Your task to perform on an android device: Go to Reddit.com Image 0: 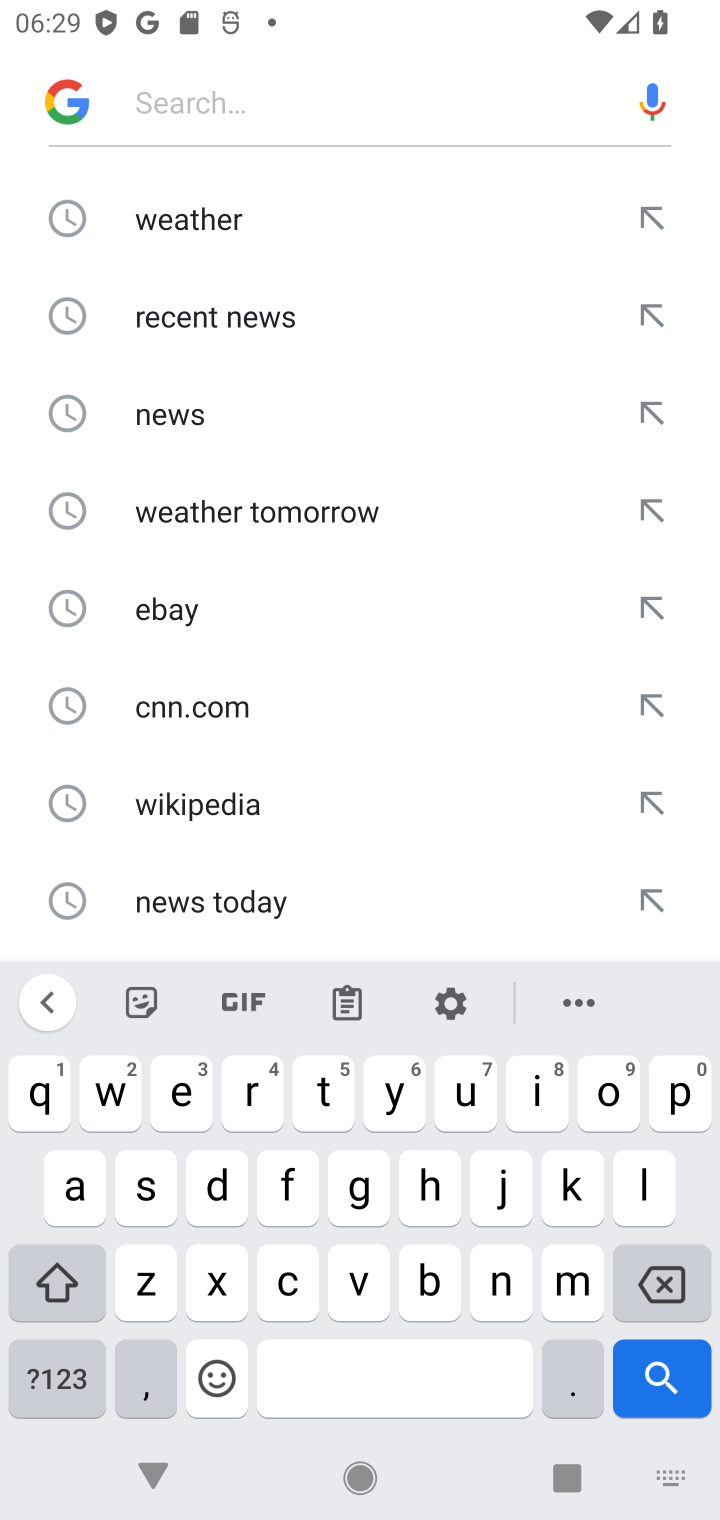
Step 0: press home button
Your task to perform on an android device: Go to Reddit.com Image 1: 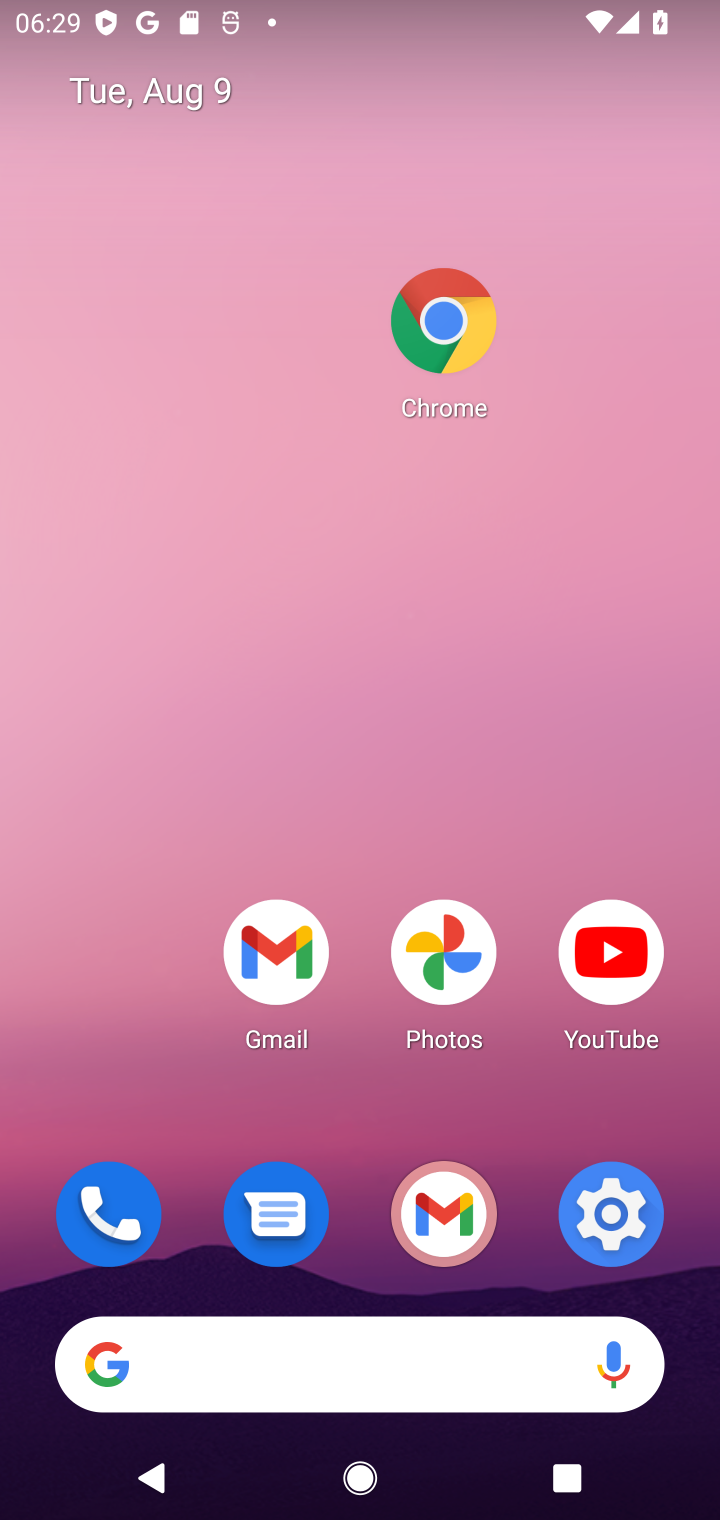
Step 1: click (443, 306)
Your task to perform on an android device: Go to Reddit.com Image 2: 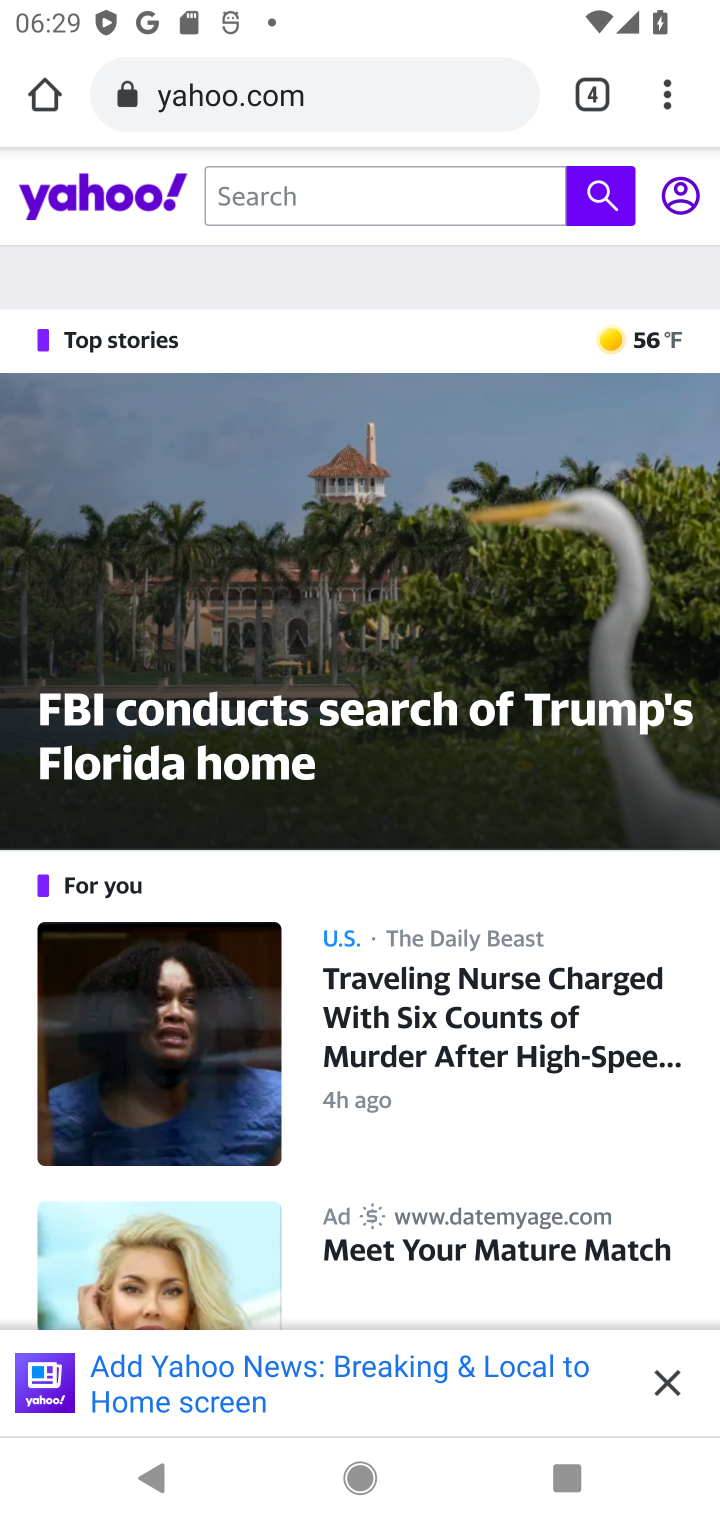
Step 2: click (336, 74)
Your task to perform on an android device: Go to Reddit.com Image 3: 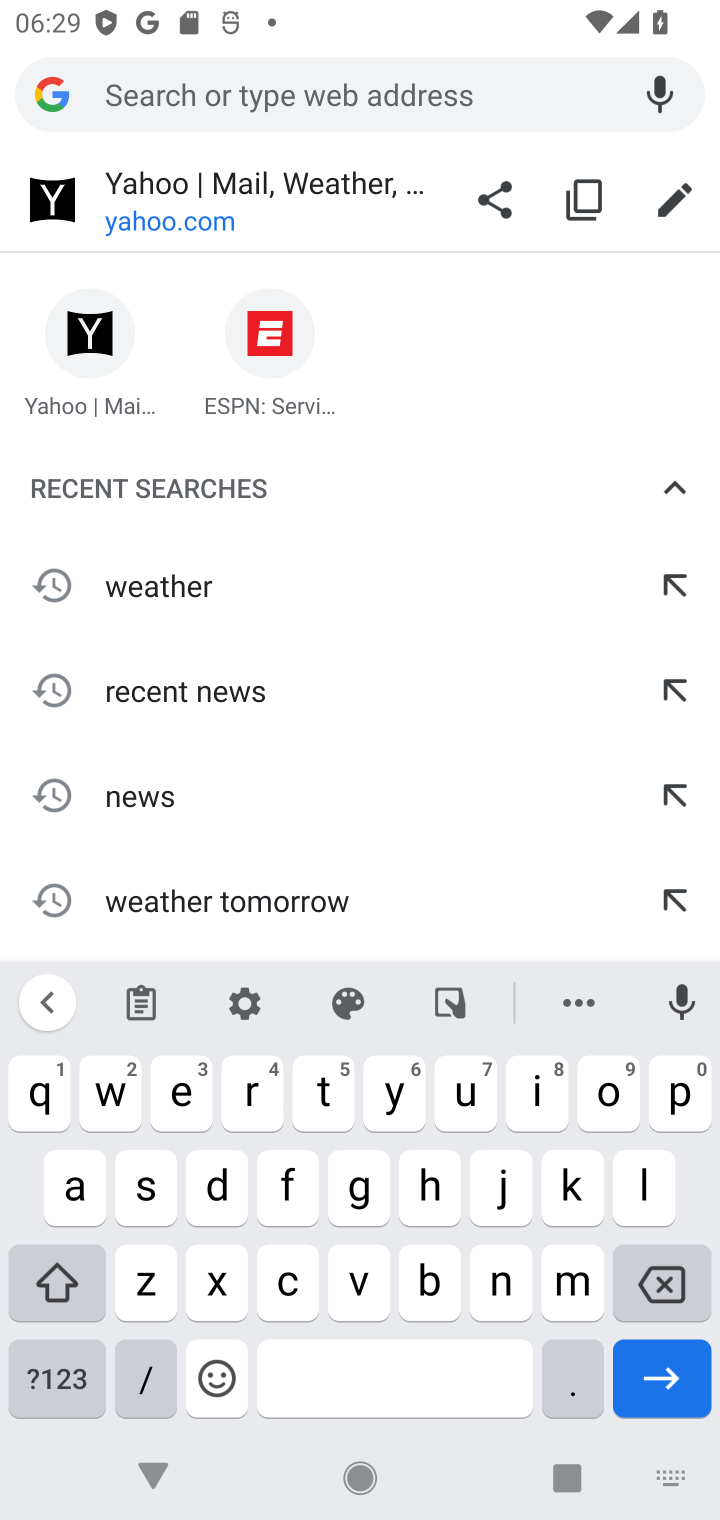
Step 3: click (231, 1094)
Your task to perform on an android device: Go to Reddit.com Image 4: 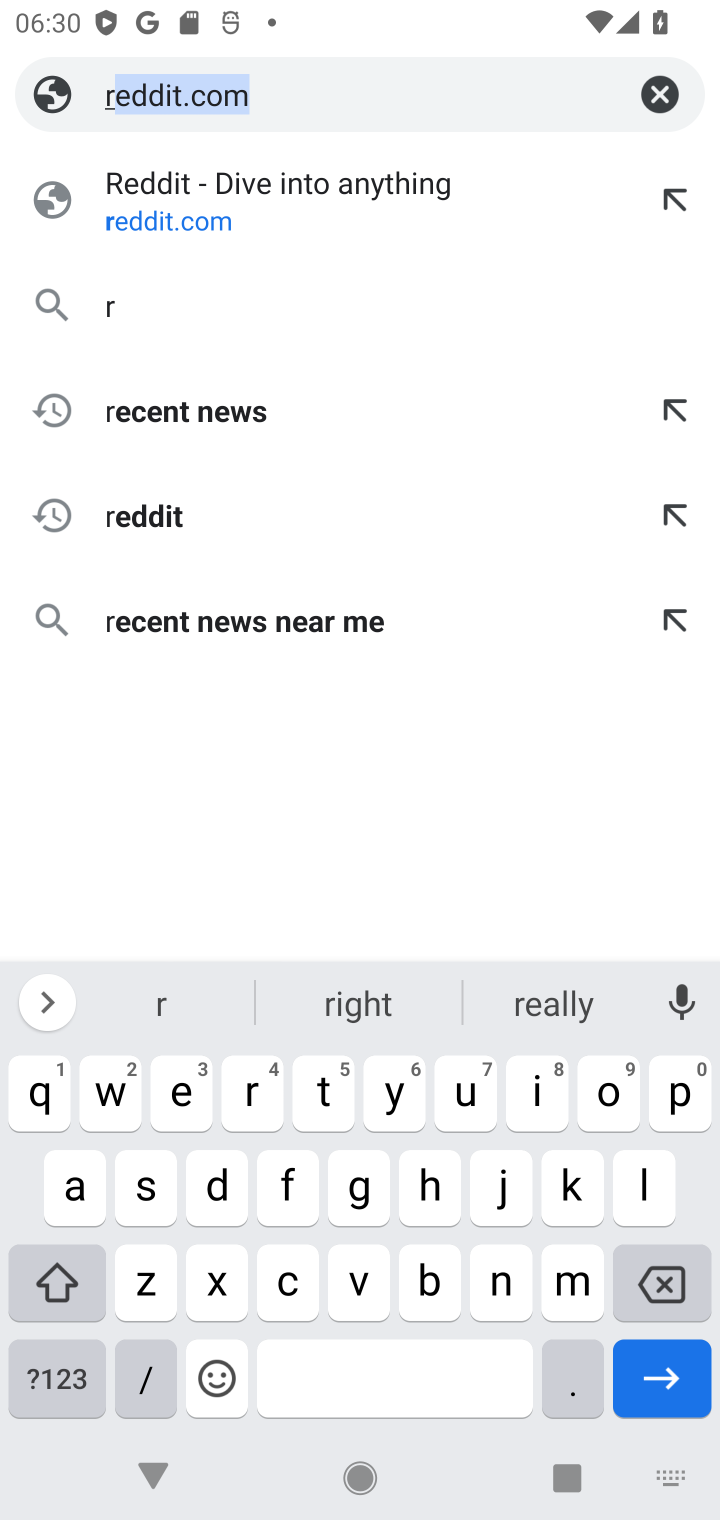
Step 4: click (328, 100)
Your task to perform on an android device: Go to Reddit.com Image 5: 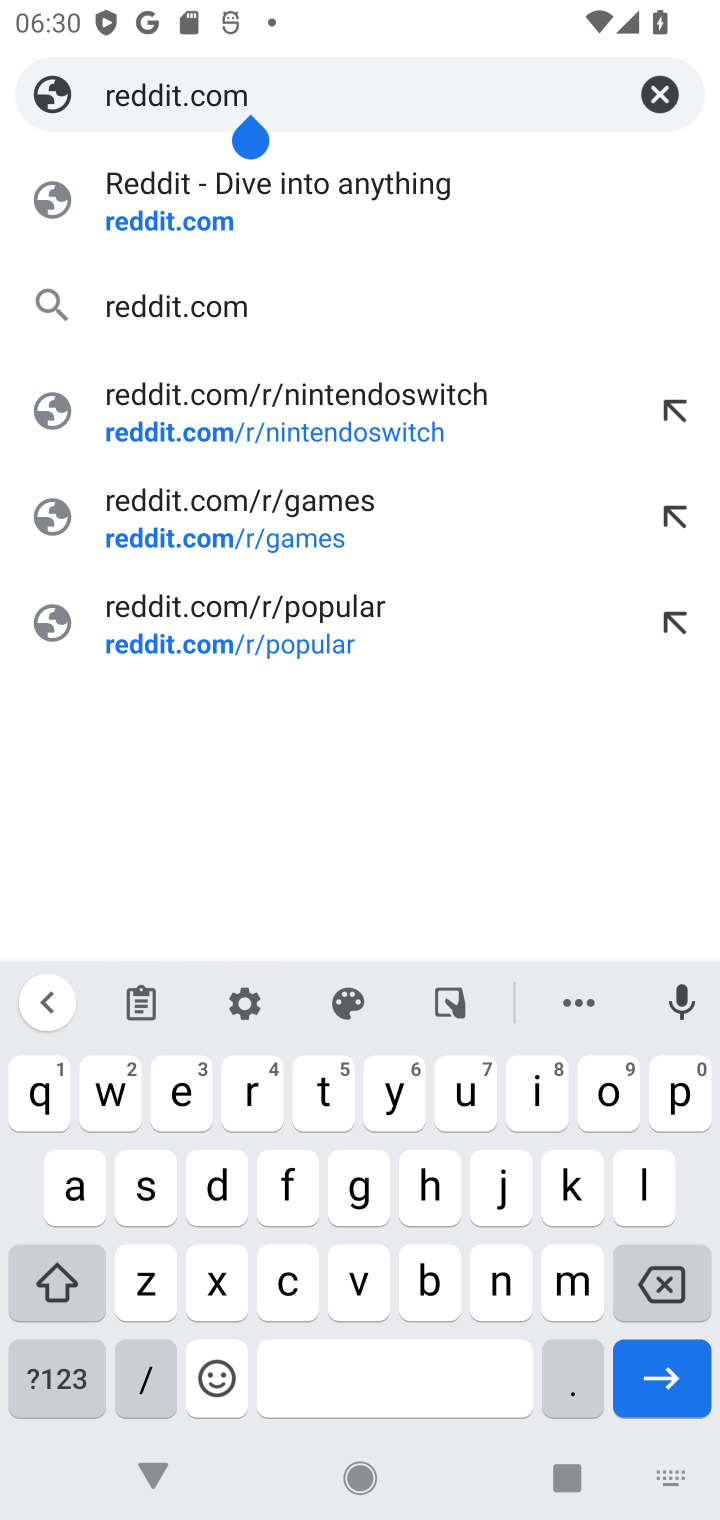
Step 5: click (652, 1371)
Your task to perform on an android device: Go to Reddit.com Image 6: 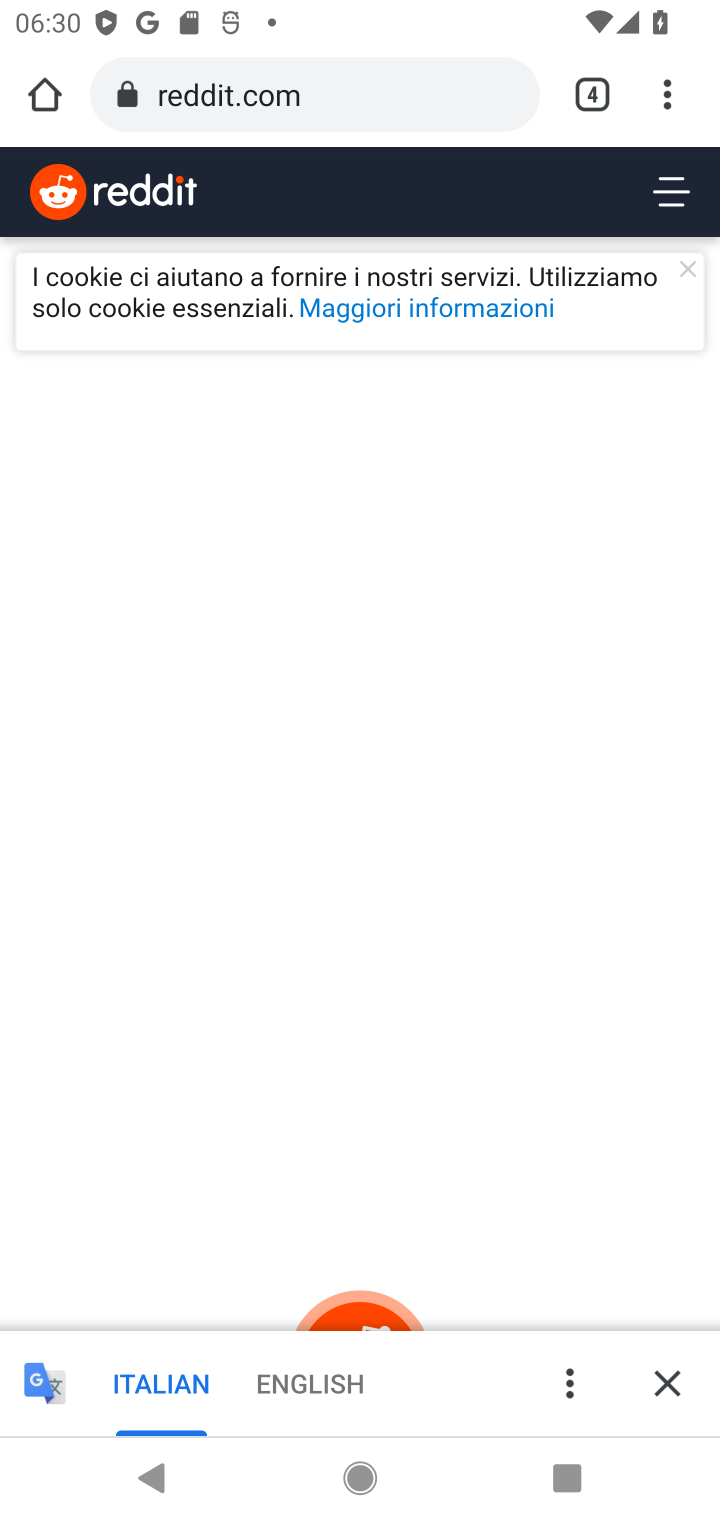
Step 6: task complete